Your task to perform on an android device: see sites visited before in the chrome app Image 0: 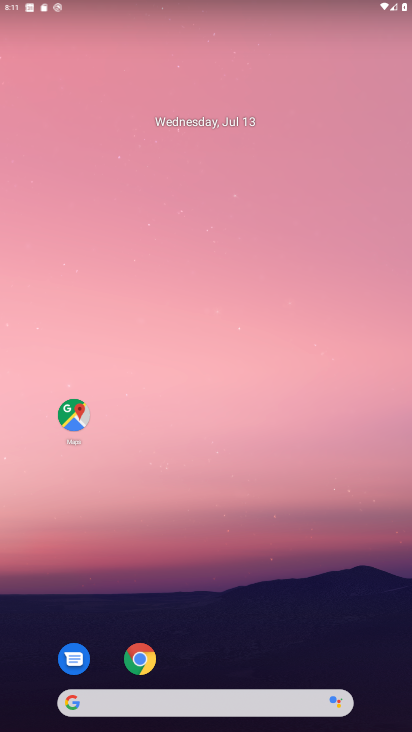
Step 0: click (141, 659)
Your task to perform on an android device: see sites visited before in the chrome app Image 1: 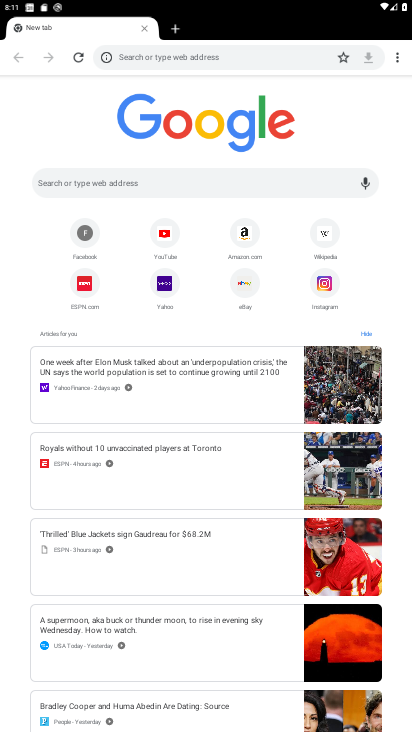
Step 1: click (399, 51)
Your task to perform on an android device: see sites visited before in the chrome app Image 2: 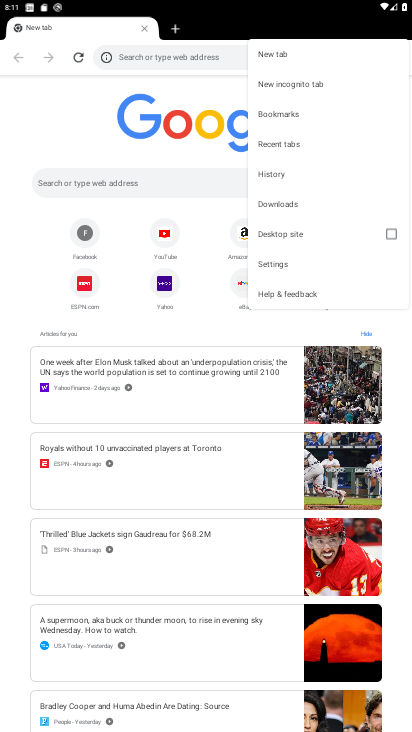
Step 2: click (279, 165)
Your task to perform on an android device: see sites visited before in the chrome app Image 3: 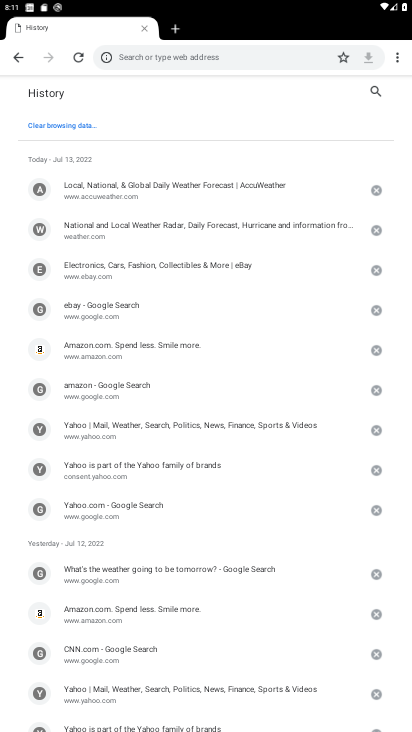
Step 3: task complete